Your task to perform on an android device: Open the web browser Image 0: 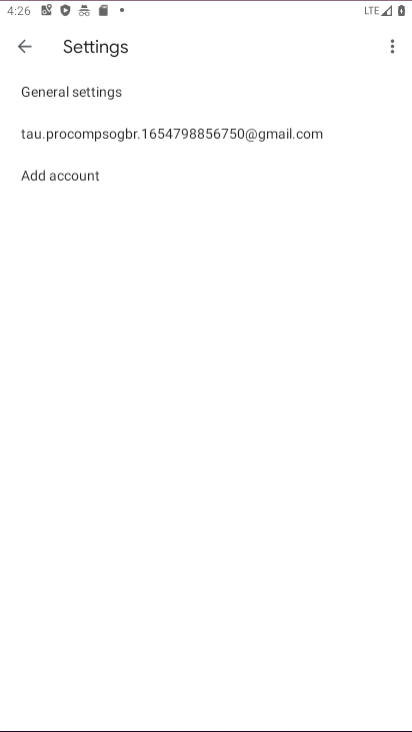
Step 0: drag from (310, 634) to (267, 245)
Your task to perform on an android device: Open the web browser Image 1: 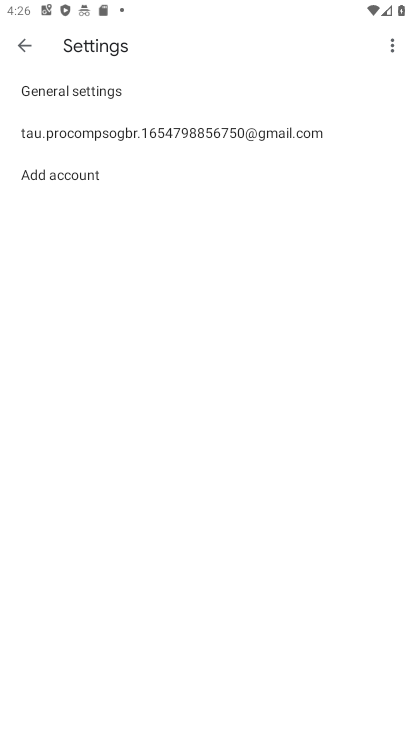
Step 1: click (32, 38)
Your task to perform on an android device: Open the web browser Image 2: 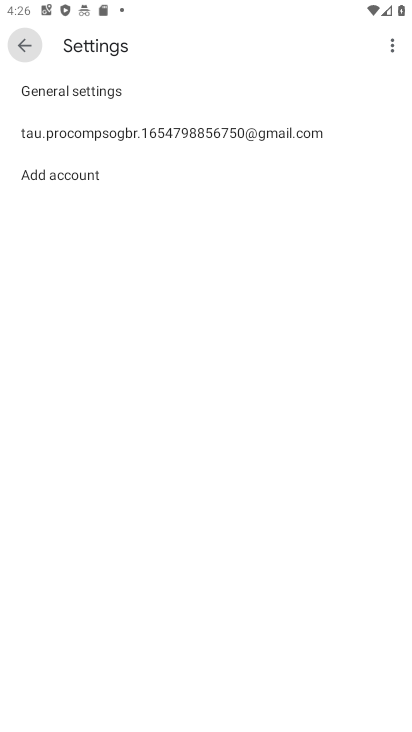
Step 2: click (28, 33)
Your task to perform on an android device: Open the web browser Image 3: 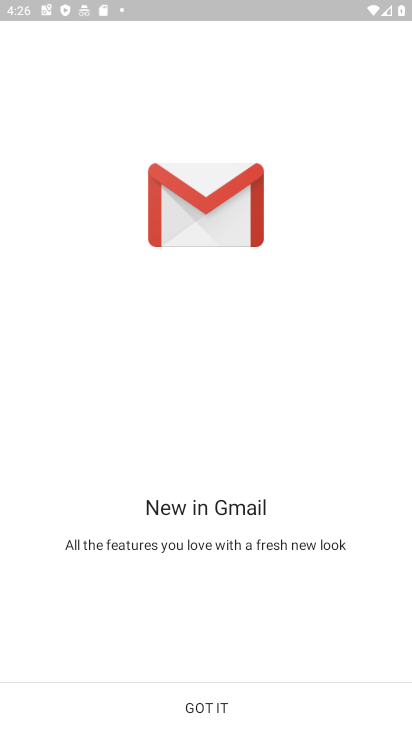
Step 3: click (224, 686)
Your task to perform on an android device: Open the web browser Image 4: 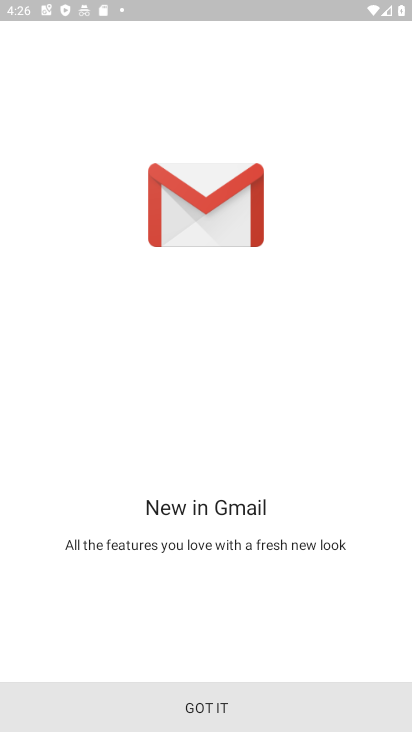
Step 4: click (228, 694)
Your task to perform on an android device: Open the web browser Image 5: 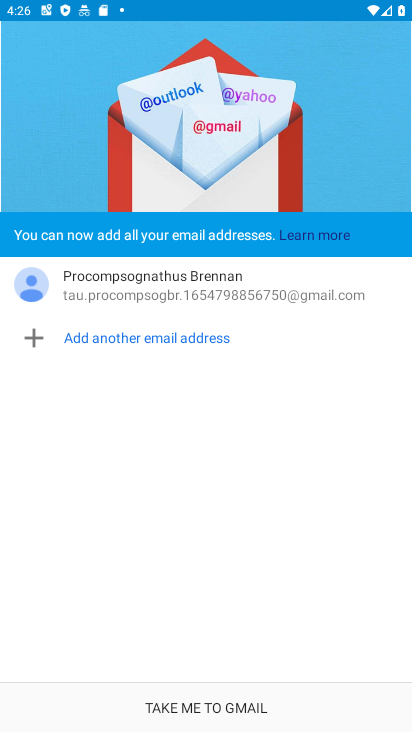
Step 5: click (237, 706)
Your task to perform on an android device: Open the web browser Image 6: 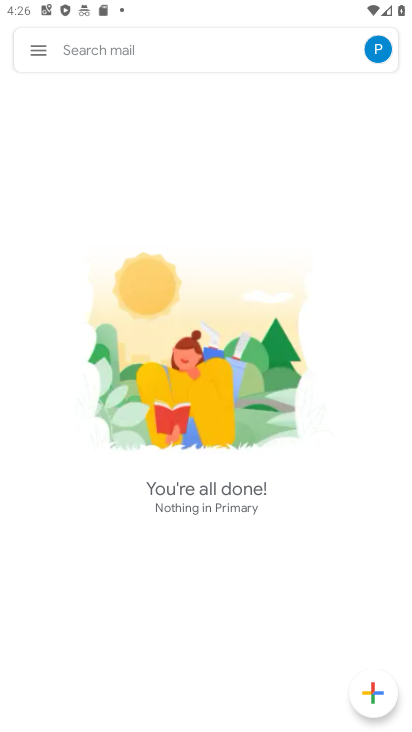
Step 6: press back button
Your task to perform on an android device: Open the web browser Image 7: 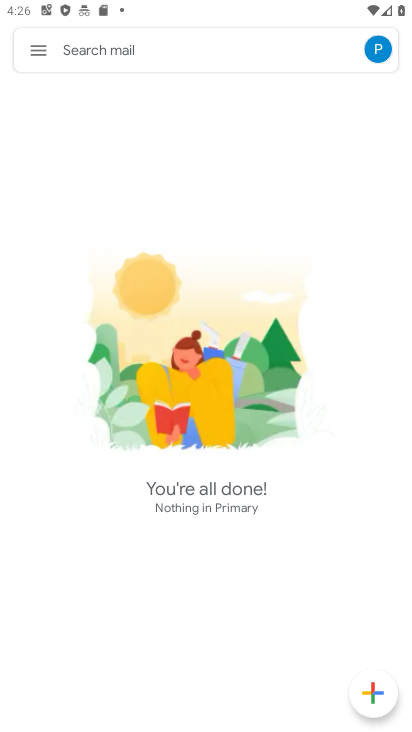
Step 7: press back button
Your task to perform on an android device: Open the web browser Image 8: 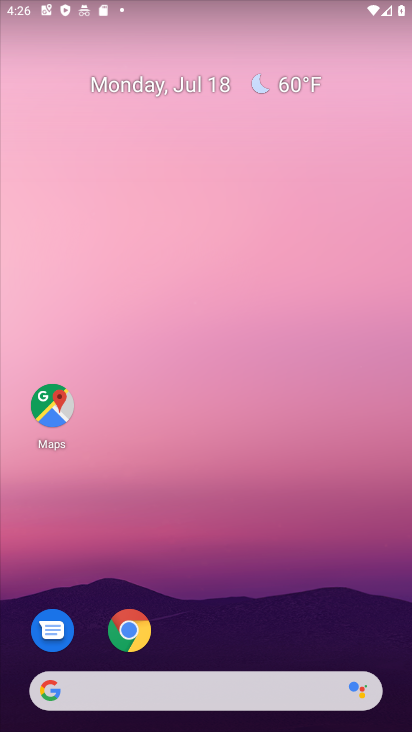
Step 8: drag from (227, 611) to (229, 122)
Your task to perform on an android device: Open the web browser Image 9: 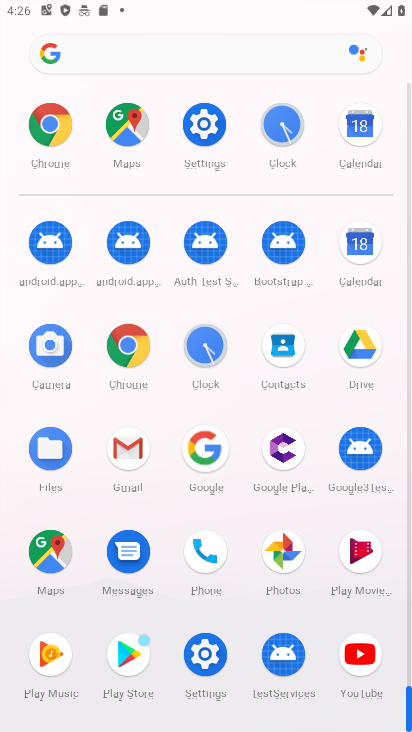
Step 9: click (44, 118)
Your task to perform on an android device: Open the web browser Image 10: 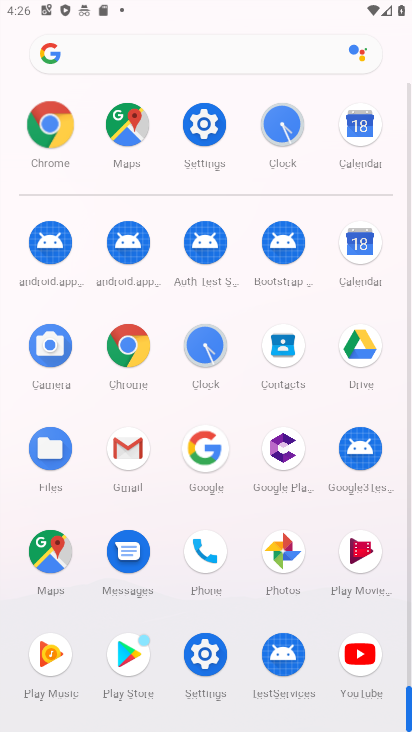
Step 10: click (44, 118)
Your task to perform on an android device: Open the web browser Image 11: 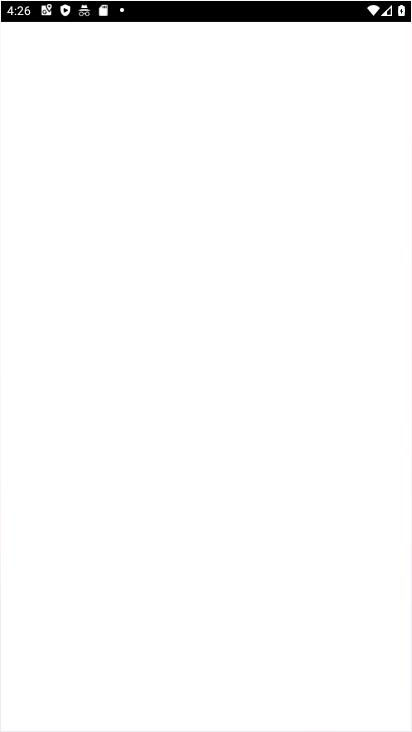
Step 11: click (46, 116)
Your task to perform on an android device: Open the web browser Image 12: 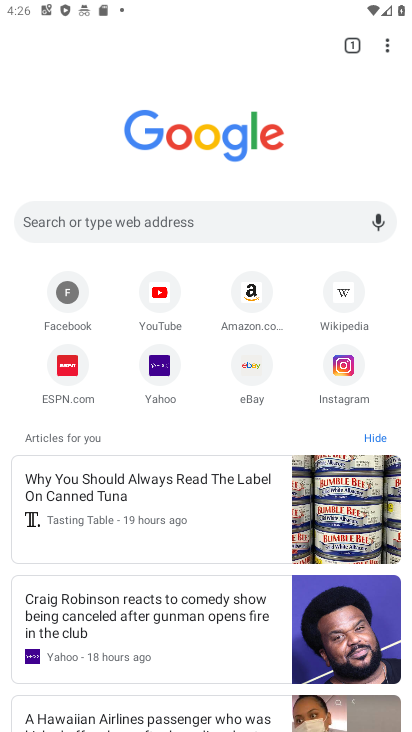
Step 12: click (99, 227)
Your task to perform on an android device: Open the web browser Image 13: 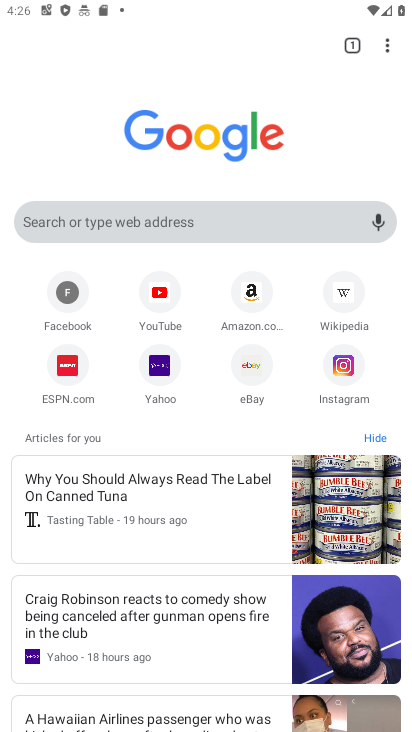
Step 13: click (98, 216)
Your task to perform on an android device: Open the web browser Image 14: 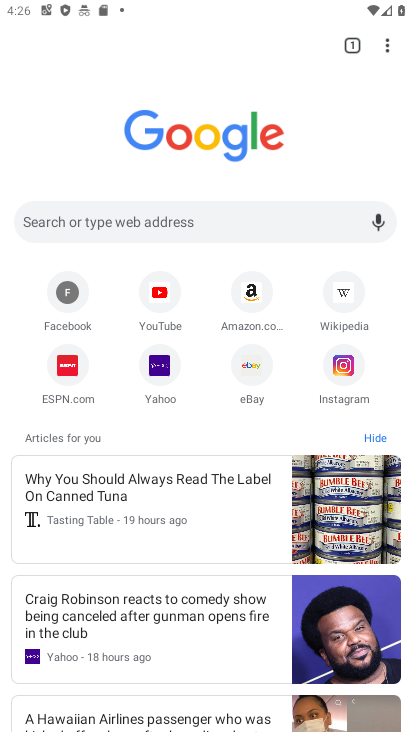
Step 14: drag from (382, 43) to (236, 87)
Your task to perform on an android device: Open the web browser Image 15: 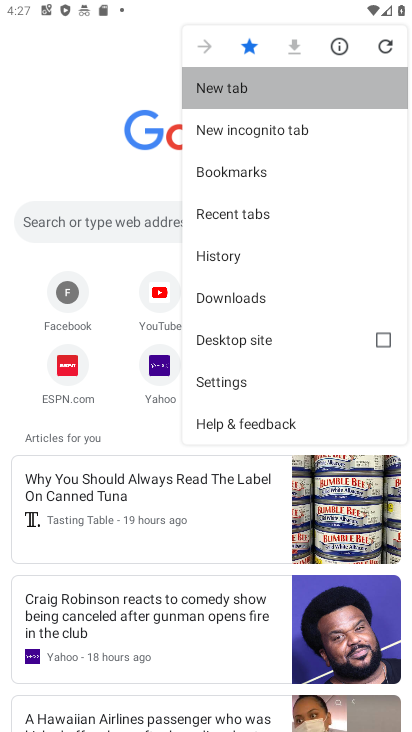
Step 15: click (236, 87)
Your task to perform on an android device: Open the web browser Image 16: 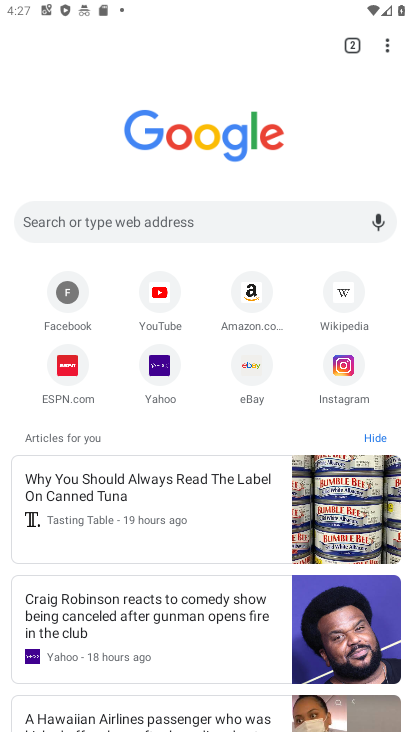
Step 16: task complete